Your task to perform on an android device: change the clock display to digital Image 0: 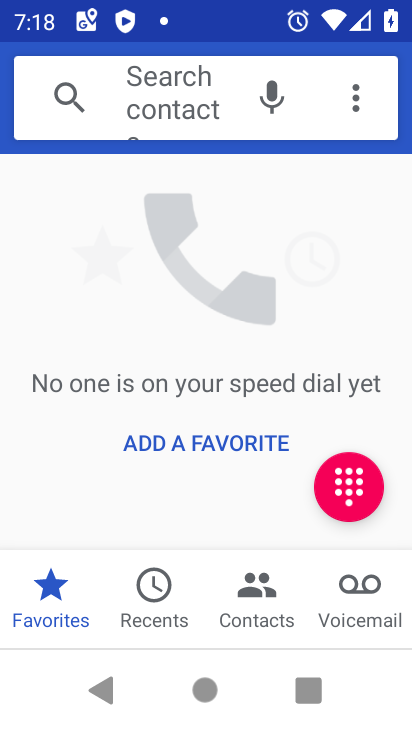
Step 0: press home button
Your task to perform on an android device: change the clock display to digital Image 1: 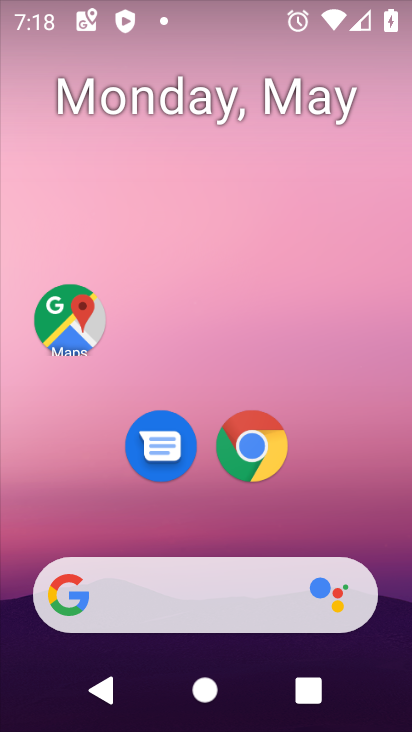
Step 1: drag from (344, 471) to (209, 41)
Your task to perform on an android device: change the clock display to digital Image 2: 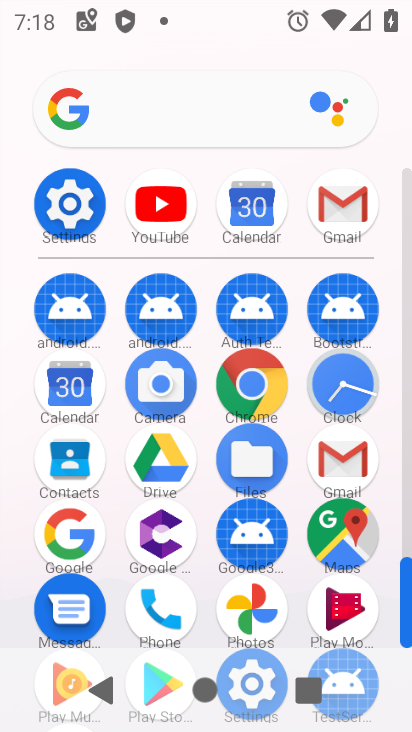
Step 2: click (331, 390)
Your task to perform on an android device: change the clock display to digital Image 3: 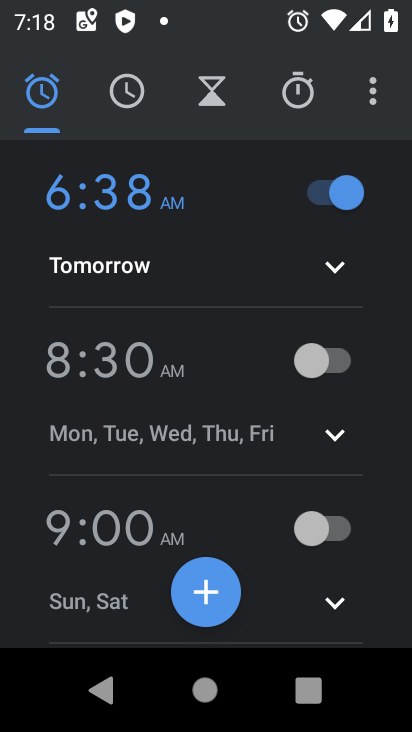
Step 3: click (381, 92)
Your task to perform on an android device: change the clock display to digital Image 4: 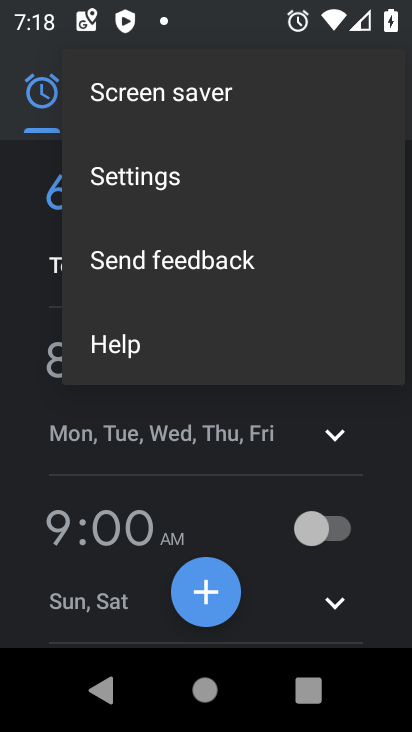
Step 4: click (179, 174)
Your task to perform on an android device: change the clock display to digital Image 5: 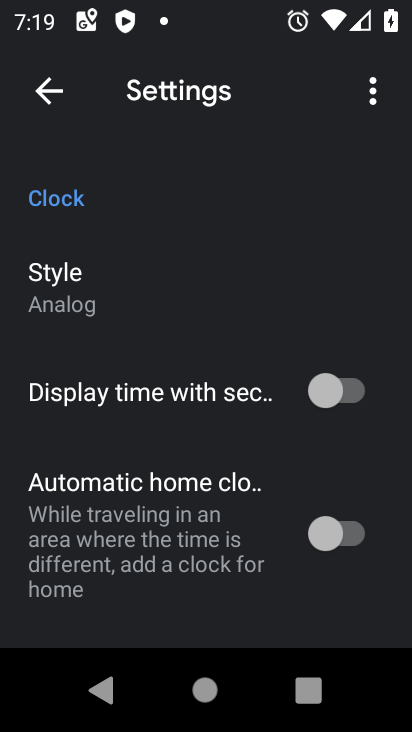
Step 5: click (71, 273)
Your task to perform on an android device: change the clock display to digital Image 6: 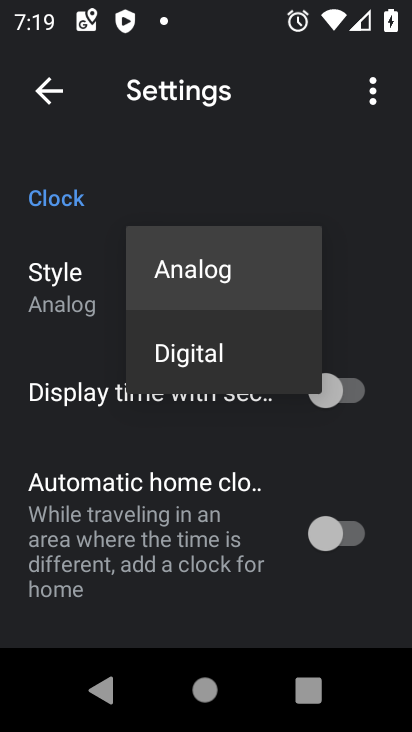
Step 6: click (204, 352)
Your task to perform on an android device: change the clock display to digital Image 7: 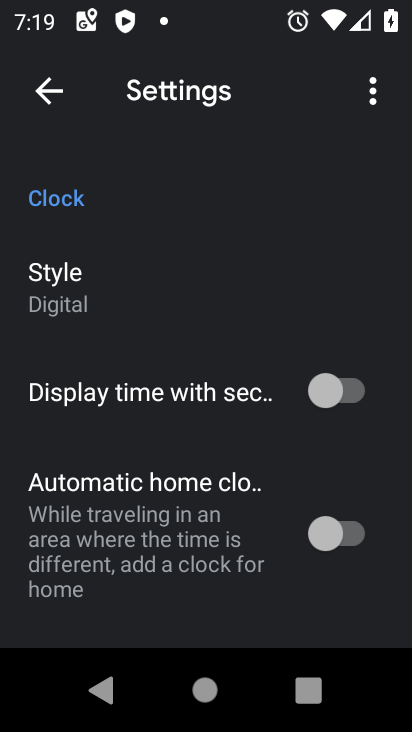
Step 7: task complete